Your task to perform on an android device: Open wifi settings Image 0: 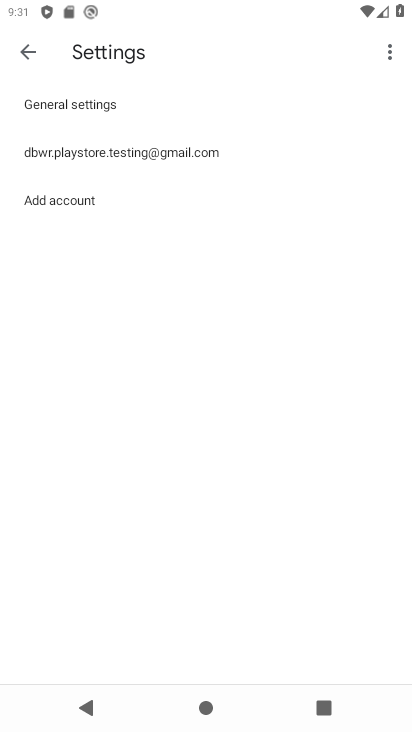
Step 0: click (269, 199)
Your task to perform on an android device: Open wifi settings Image 1: 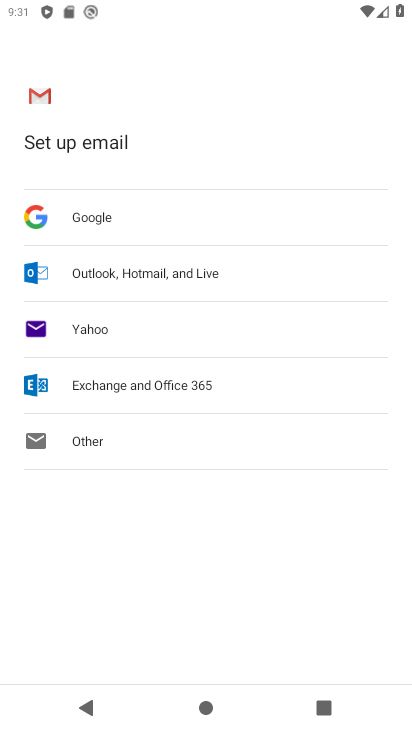
Step 1: press home button
Your task to perform on an android device: Open wifi settings Image 2: 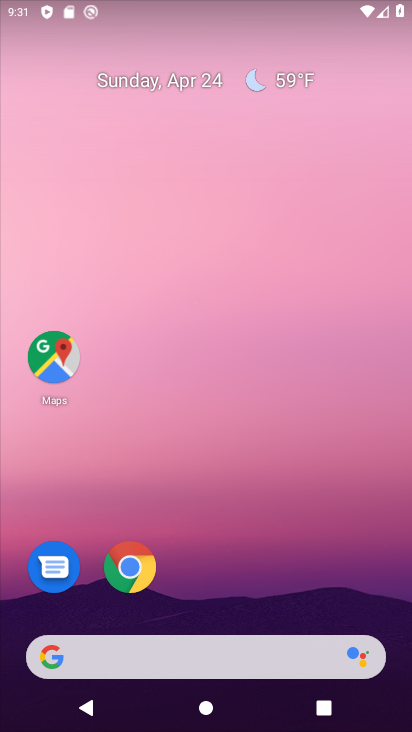
Step 2: drag from (374, 521) to (333, 195)
Your task to perform on an android device: Open wifi settings Image 3: 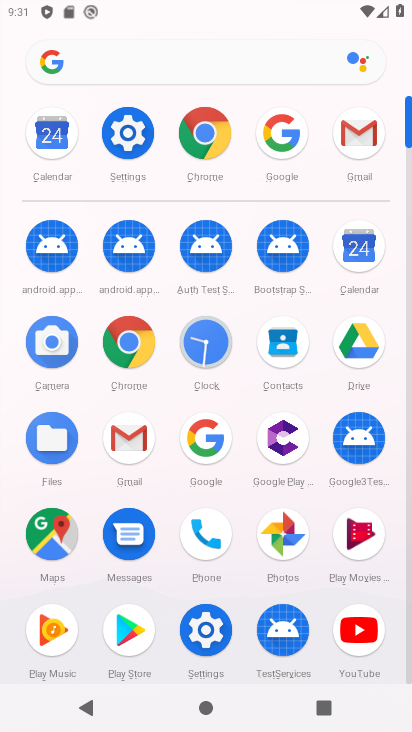
Step 3: click (122, 125)
Your task to perform on an android device: Open wifi settings Image 4: 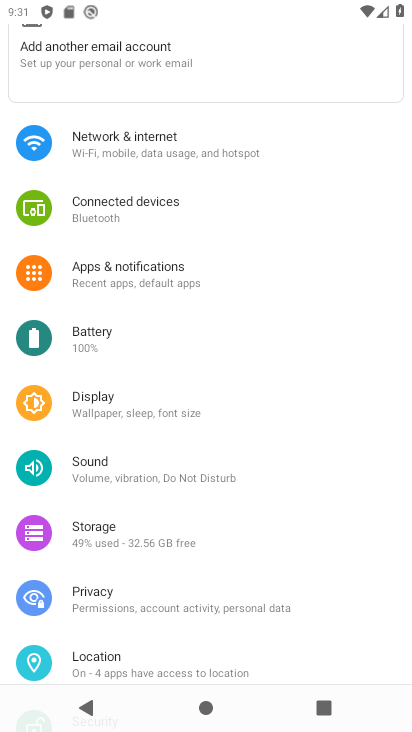
Step 4: click (81, 143)
Your task to perform on an android device: Open wifi settings Image 5: 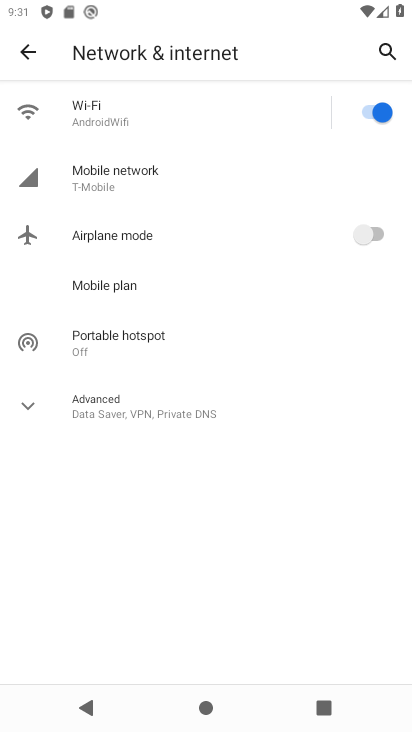
Step 5: task complete